Your task to perform on an android device: Open calendar and show me the first week of next month Image 0: 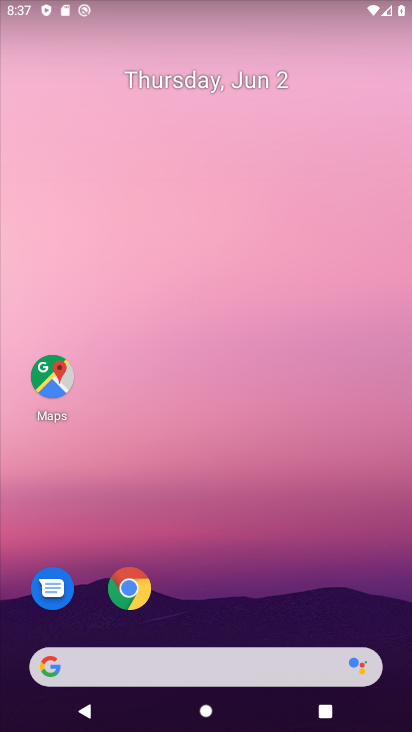
Step 0: drag from (300, 637) to (286, 154)
Your task to perform on an android device: Open calendar and show me the first week of next month Image 1: 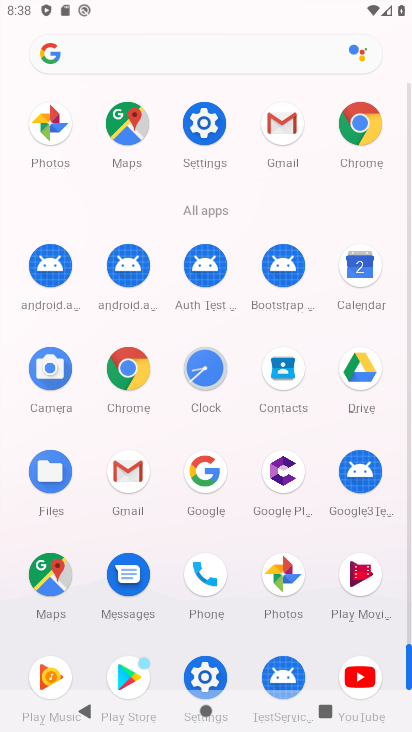
Step 1: click (364, 279)
Your task to perform on an android device: Open calendar and show me the first week of next month Image 2: 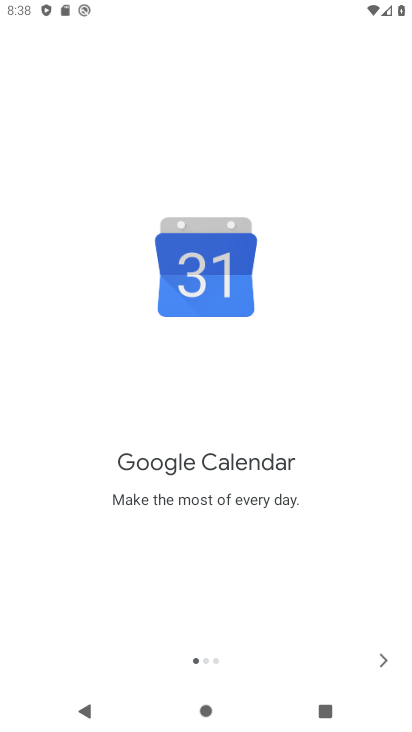
Step 2: click (382, 666)
Your task to perform on an android device: Open calendar and show me the first week of next month Image 3: 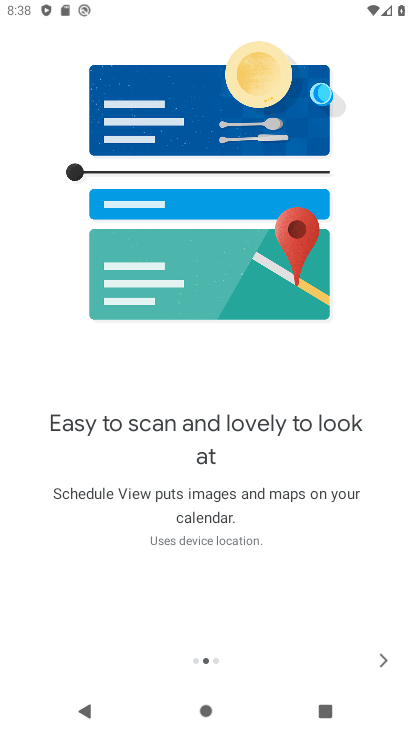
Step 3: click (382, 666)
Your task to perform on an android device: Open calendar and show me the first week of next month Image 4: 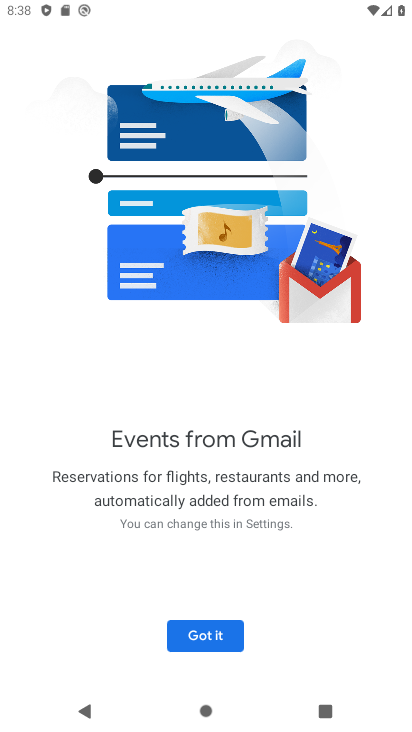
Step 4: click (210, 624)
Your task to perform on an android device: Open calendar and show me the first week of next month Image 5: 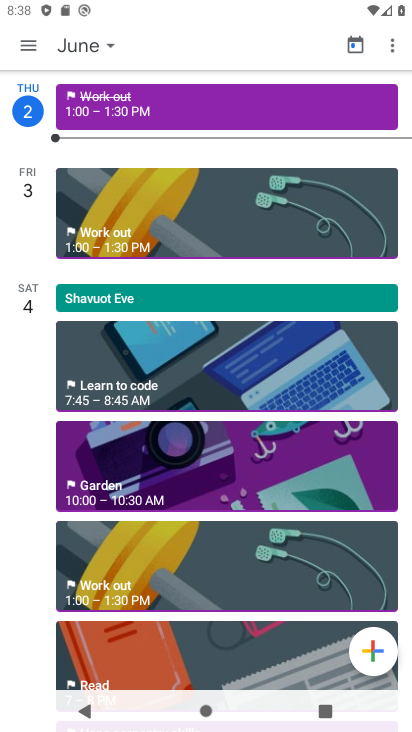
Step 5: click (22, 49)
Your task to perform on an android device: Open calendar and show me the first week of next month Image 6: 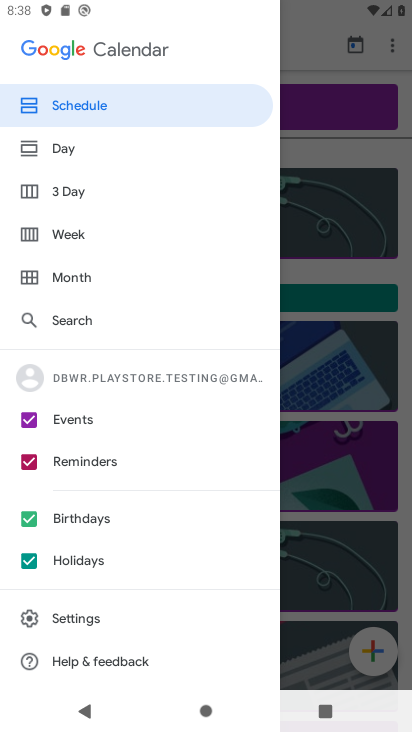
Step 6: click (107, 224)
Your task to perform on an android device: Open calendar and show me the first week of next month Image 7: 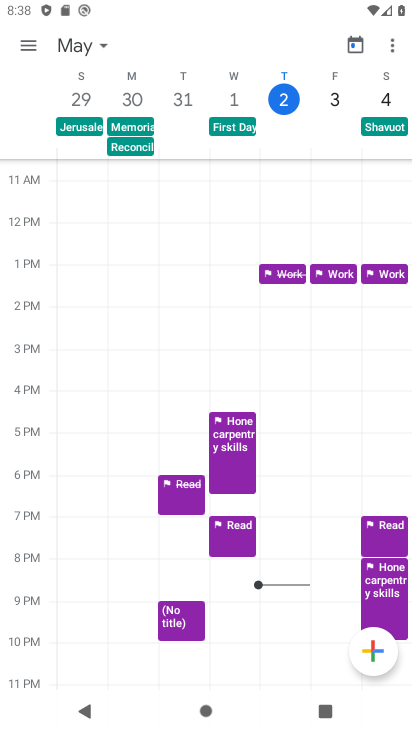
Step 7: drag from (330, 564) to (333, 346)
Your task to perform on an android device: Open calendar and show me the first week of next month Image 8: 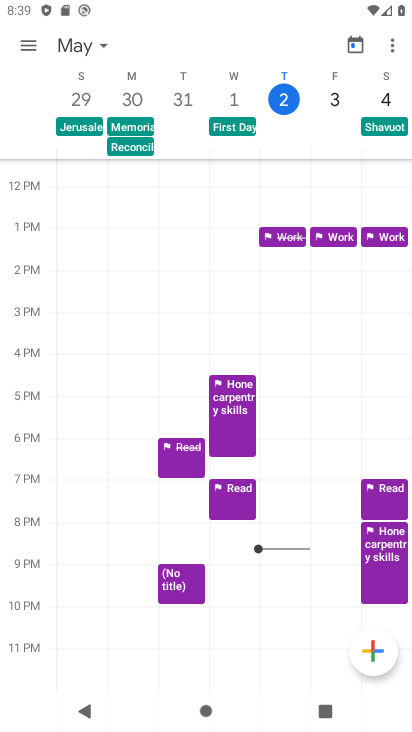
Step 8: click (305, 585)
Your task to perform on an android device: Open calendar and show me the first week of next month Image 9: 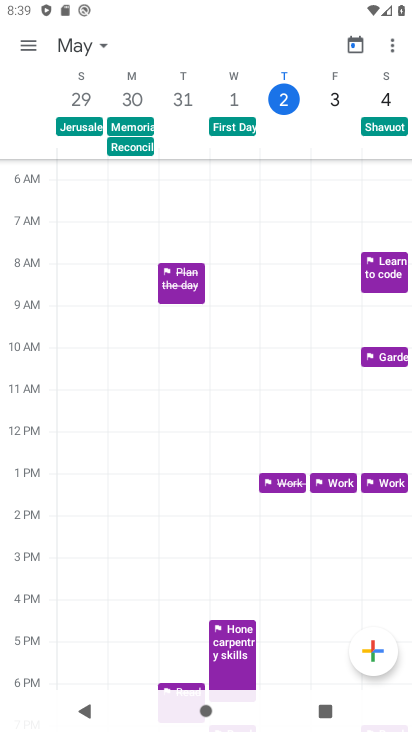
Step 9: task complete